Your task to perform on an android device: change the clock display to show seconds Image 0: 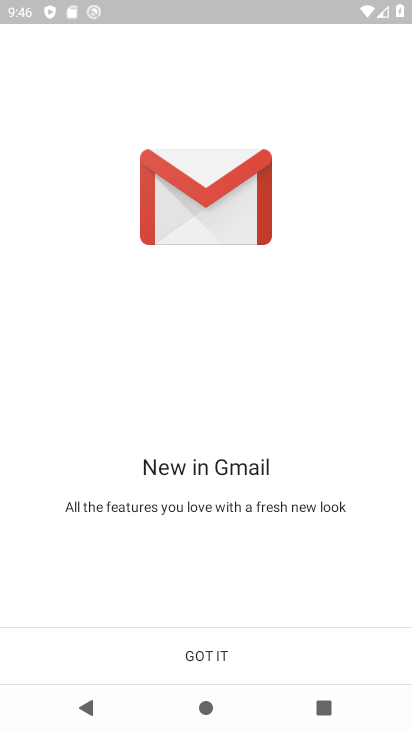
Step 0: press home button
Your task to perform on an android device: change the clock display to show seconds Image 1: 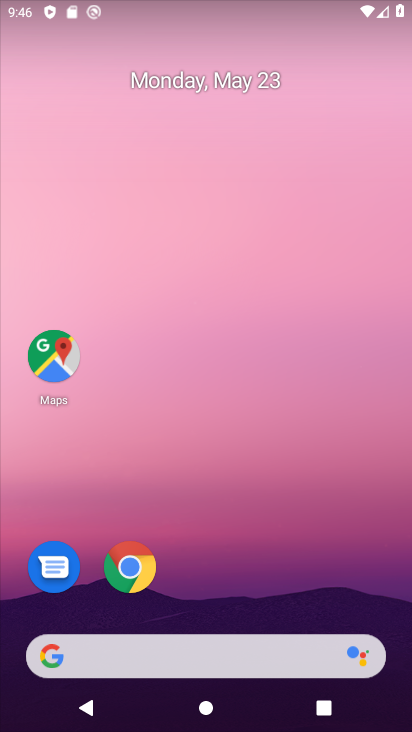
Step 1: drag from (214, 577) to (331, 84)
Your task to perform on an android device: change the clock display to show seconds Image 2: 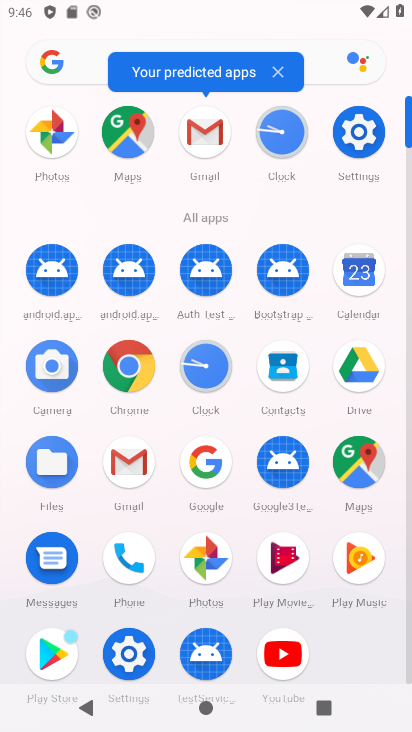
Step 2: click (200, 375)
Your task to perform on an android device: change the clock display to show seconds Image 3: 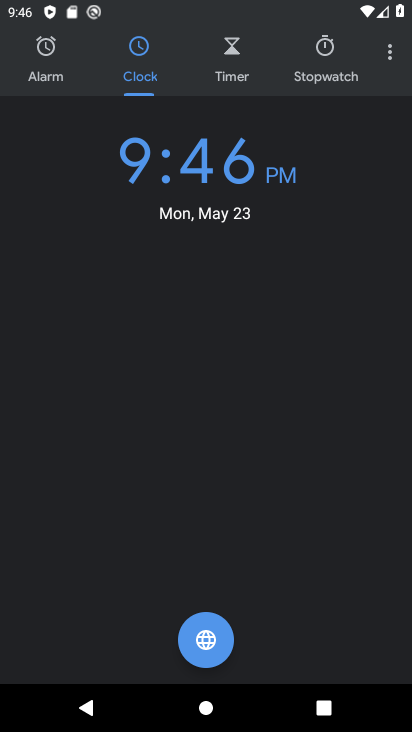
Step 3: click (395, 61)
Your task to perform on an android device: change the clock display to show seconds Image 4: 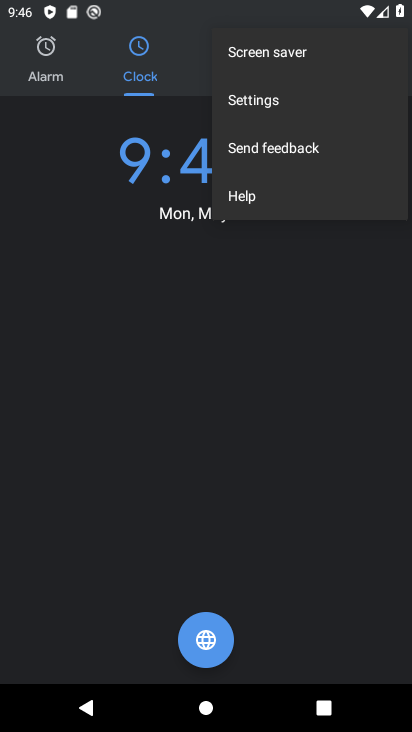
Step 4: click (334, 106)
Your task to perform on an android device: change the clock display to show seconds Image 5: 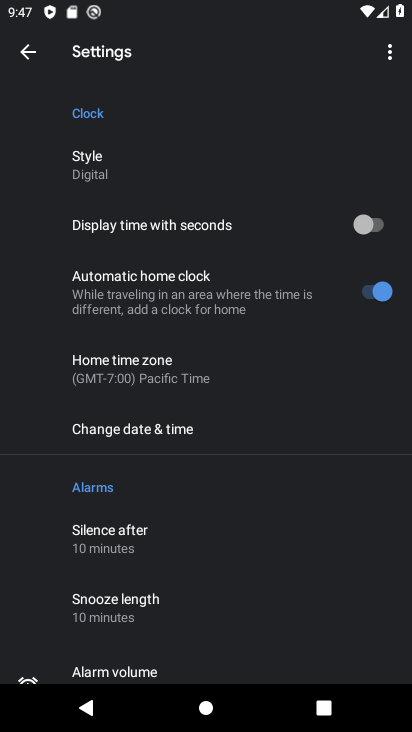
Step 5: click (387, 223)
Your task to perform on an android device: change the clock display to show seconds Image 6: 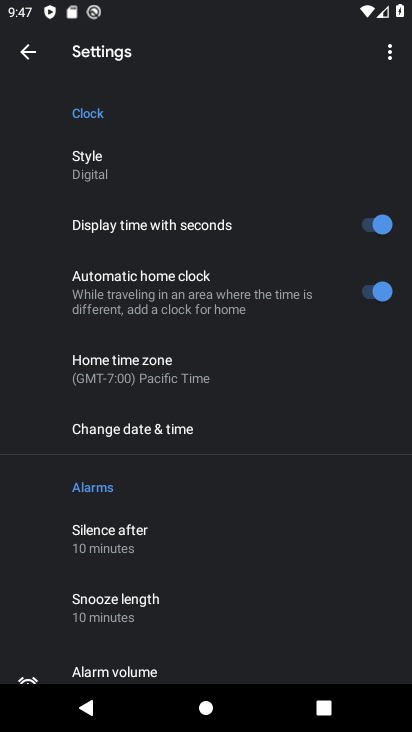
Step 6: click (256, 193)
Your task to perform on an android device: change the clock display to show seconds Image 7: 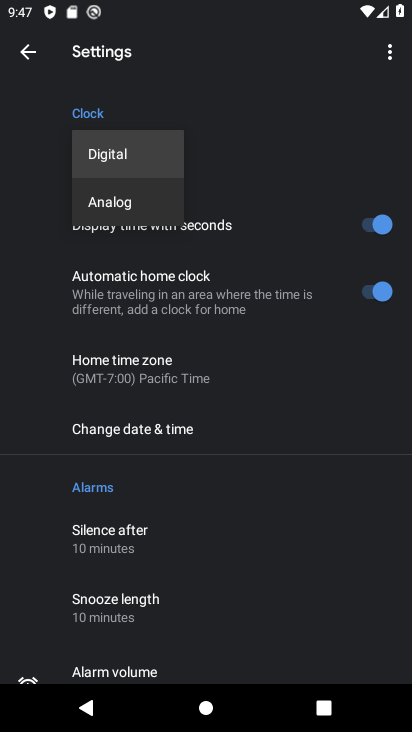
Step 7: task complete